Your task to perform on an android device: delete the emails in spam in the gmail app Image 0: 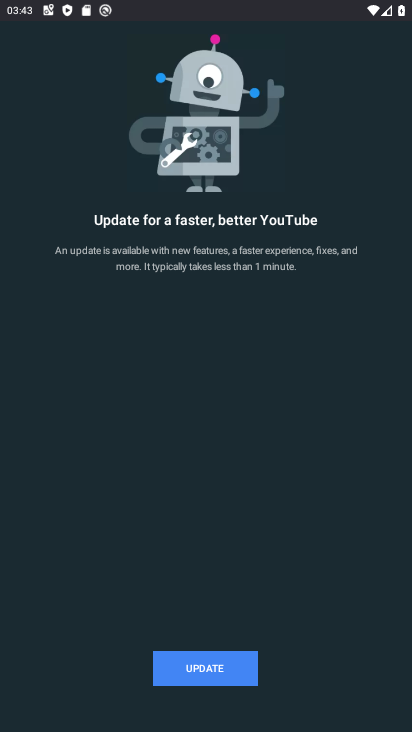
Step 0: task impossible